Your task to perform on an android device: Is it going to rain today? Image 0: 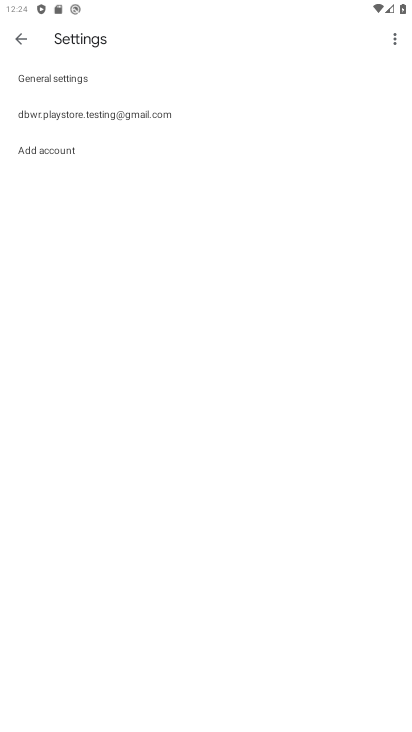
Step 0: press home button
Your task to perform on an android device: Is it going to rain today? Image 1: 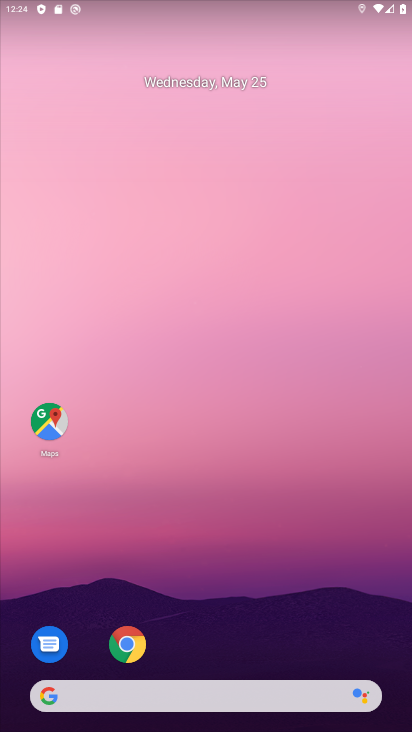
Step 1: click (411, 541)
Your task to perform on an android device: Is it going to rain today? Image 2: 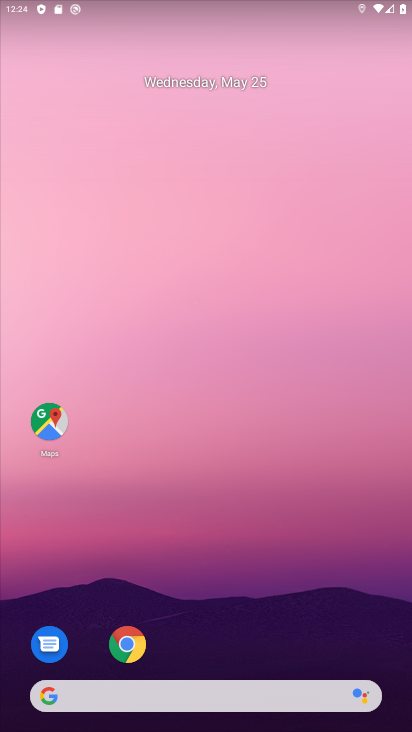
Step 2: click (193, 693)
Your task to perform on an android device: Is it going to rain today? Image 3: 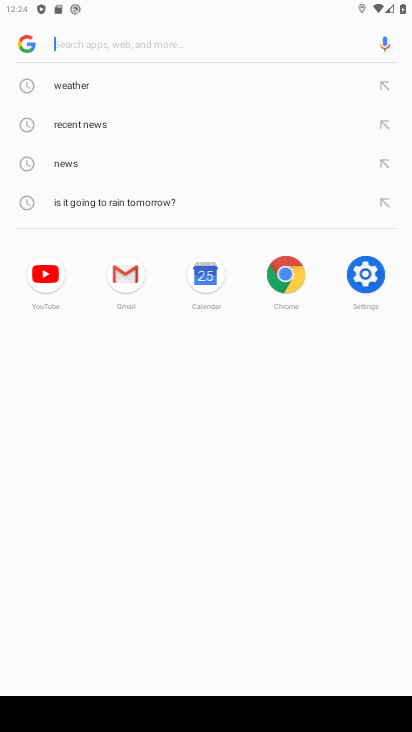
Step 3: click (65, 85)
Your task to perform on an android device: Is it going to rain today? Image 4: 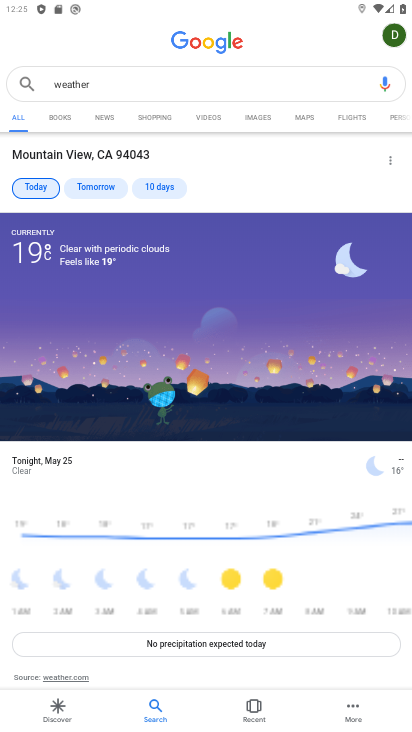
Step 4: task complete